Your task to perform on an android device: Go to accessibility settings Image 0: 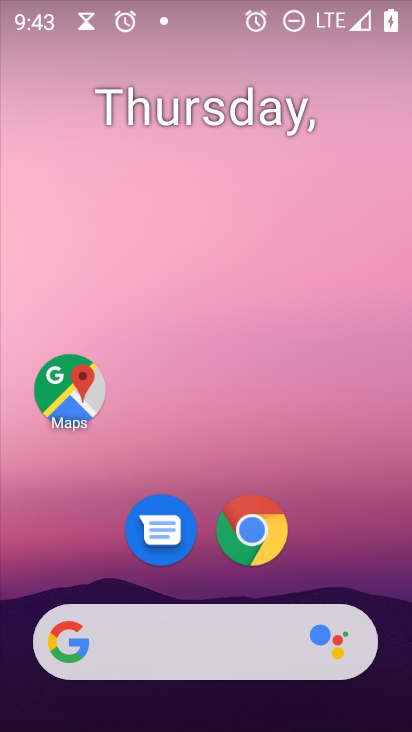
Step 0: drag from (355, 552) to (262, 32)
Your task to perform on an android device: Go to accessibility settings Image 1: 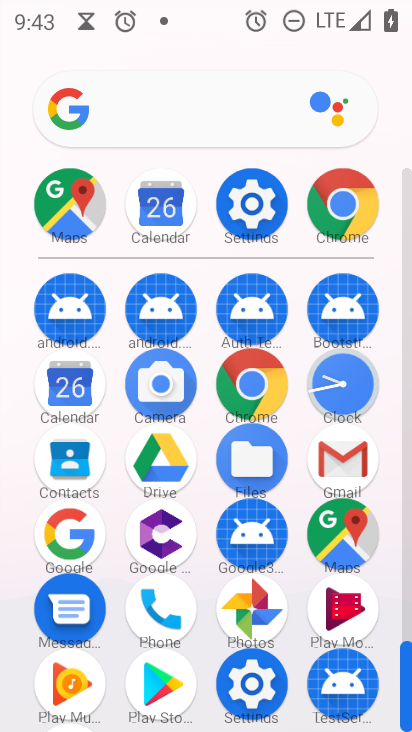
Step 1: drag from (10, 575) to (2, 232)
Your task to perform on an android device: Go to accessibility settings Image 2: 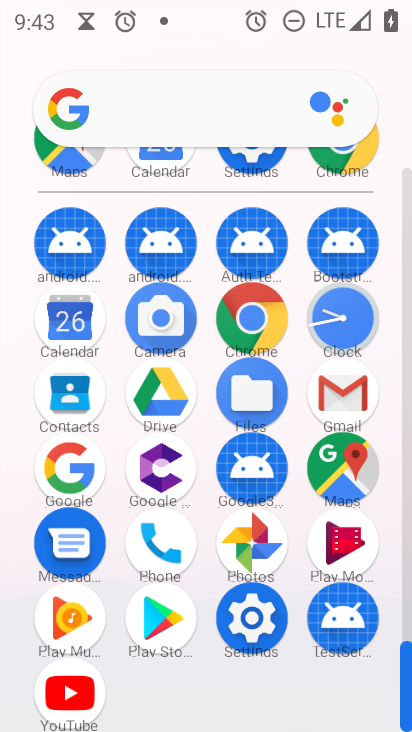
Step 2: click (251, 615)
Your task to perform on an android device: Go to accessibility settings Image 3: 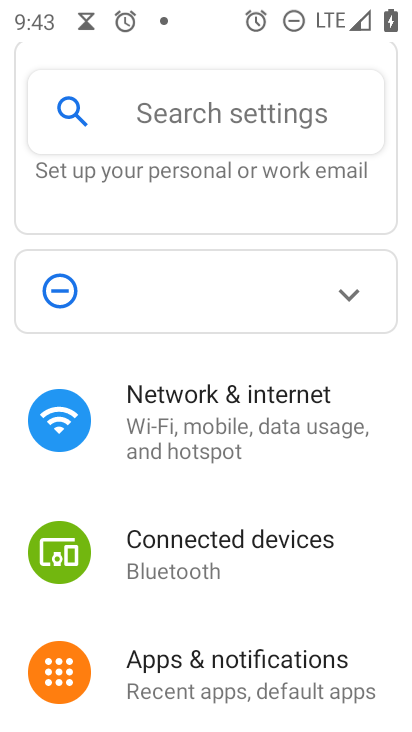
Step 3: drag from (298, 635) to (309, 252)
Your task to perform on an android device: Go to accessibility settings Image 4: 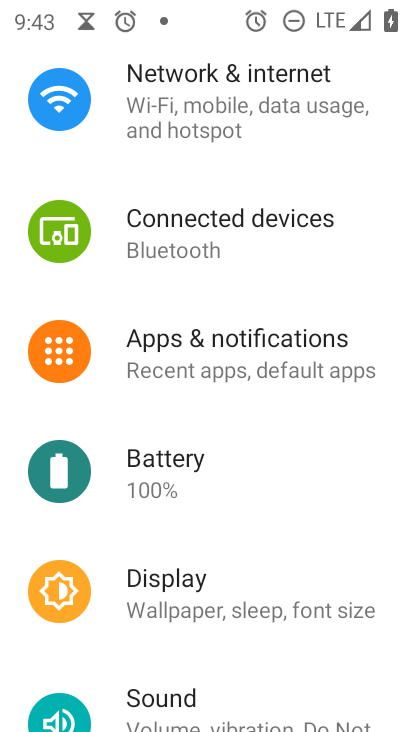
Step 4: drag from (265, 556) to (271, 227)
Your task to perform on an android device: Go to accessibility settings Image 5: 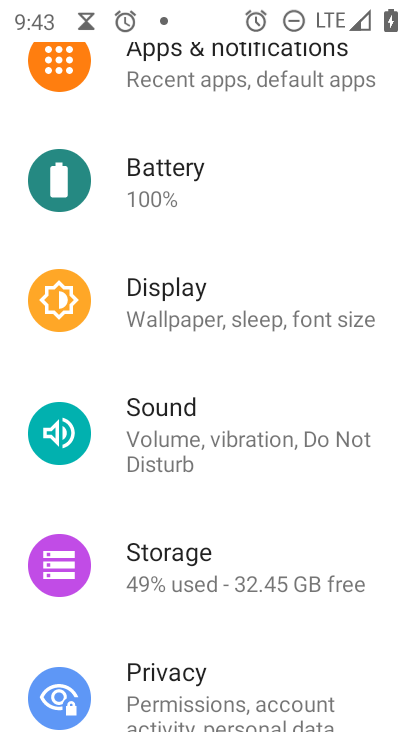
Step 5: drag from (303, 659) to (314, 188)
Your task to perform on an android device: Go to accessibility settings Image 6: 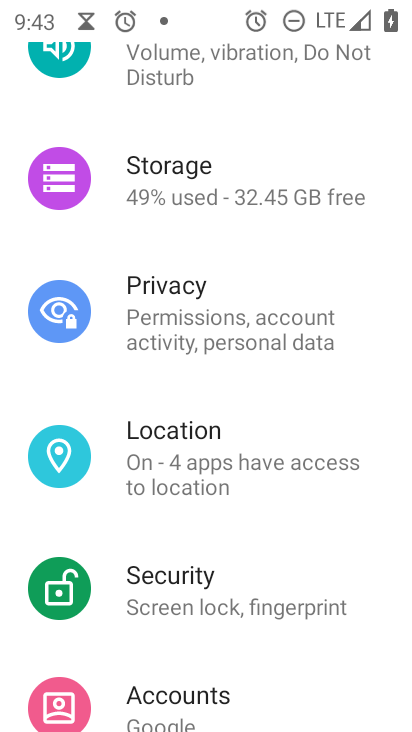
Step 6: drag from (283, 547) to (282, 197)
Your task to perform on an android device: Go to accessibility settings Image 7: 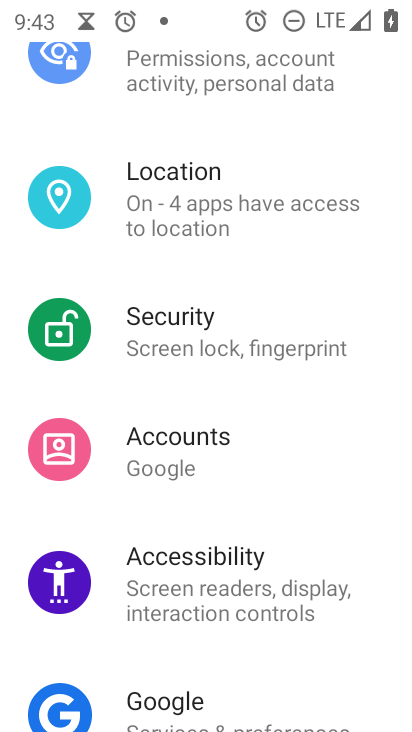
Step 7: click (199, 558)
Your task to perform on an android device: Go to accessibility settings Image 8: 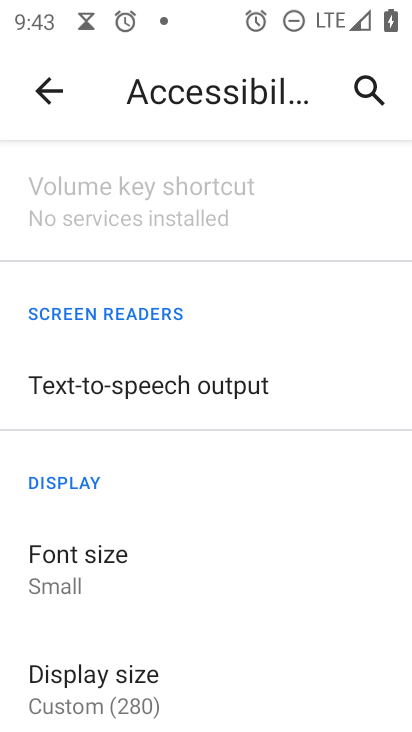
Step 8: task complete